Your task to perform on an android device: Play the last video I watched on Youtube Image 0: 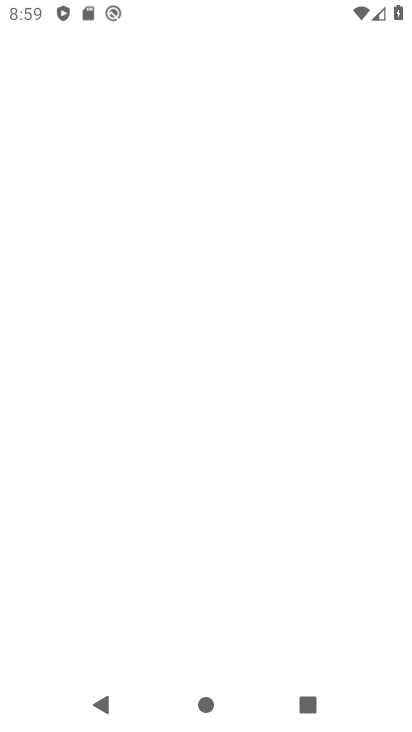
Step 0: click (360, 407)
Your task to perform on an android device: Play the last video I watched on Youtube Image 1: 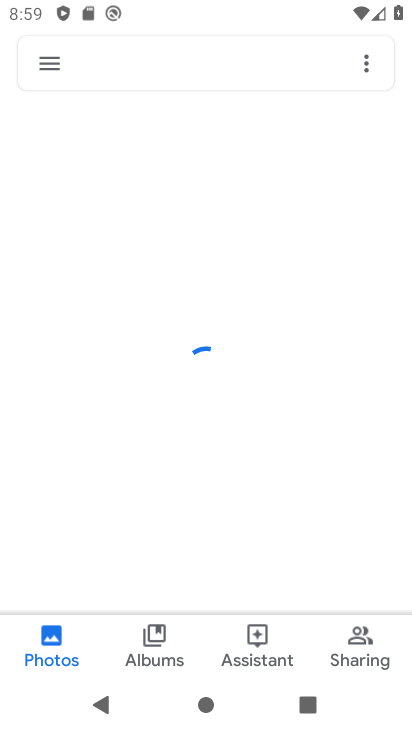
Step 1: press home button
Your task to perform on an android device: Play the last video I watched on Youtube Image 2: 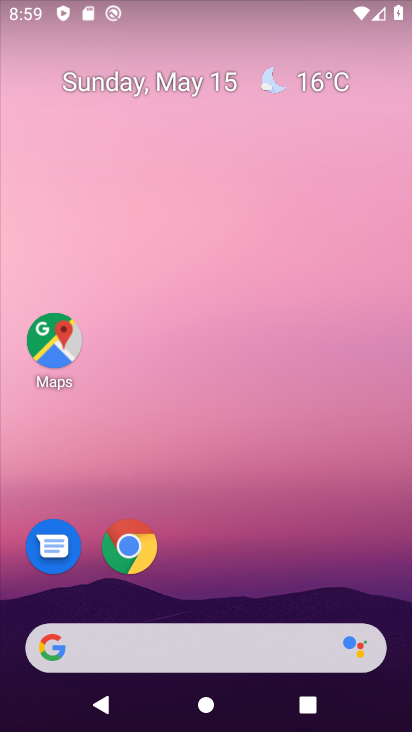
Step 2: drag from (184, 614) to (334, 43)
Your task to perform on an android device: Play the last video I watched on Youtube Image 3: 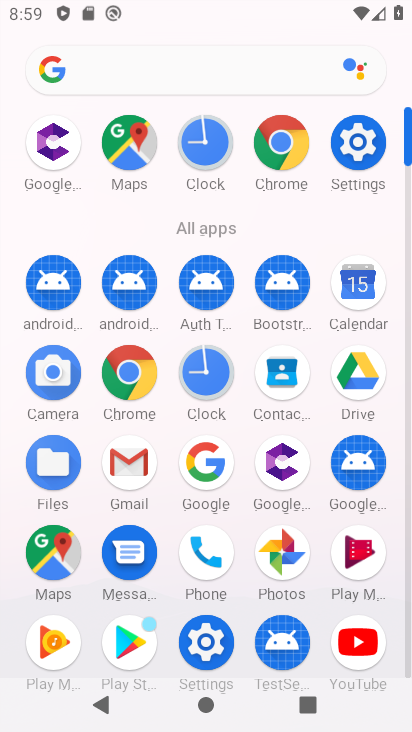
Step 3: click (376, 652)
Your task to perform on an android device: Play the last video I watched on Youtube Image 4: 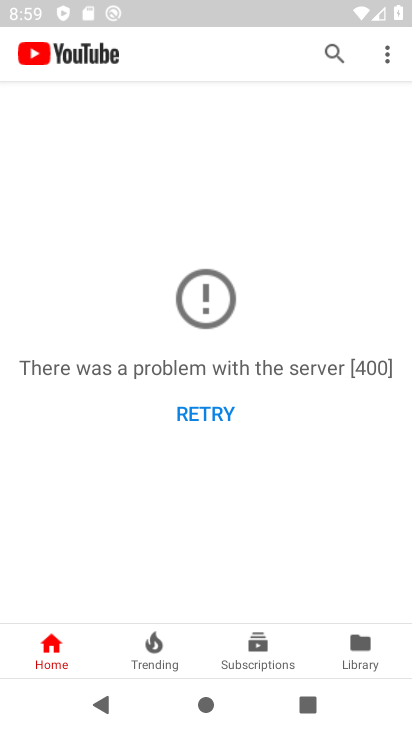
Step 4: click (362, 655)
Your task to perform on an android device: Play the last video I watched on Youtube Image 5: 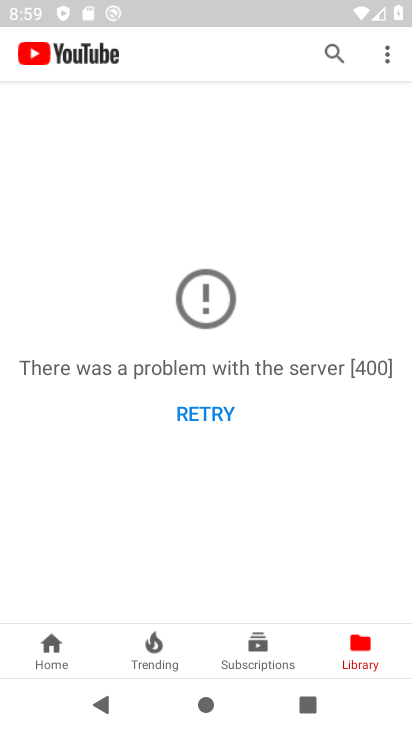
Step 5: task complete